Your task to perform on an android device: all mails in gmail Image 0: 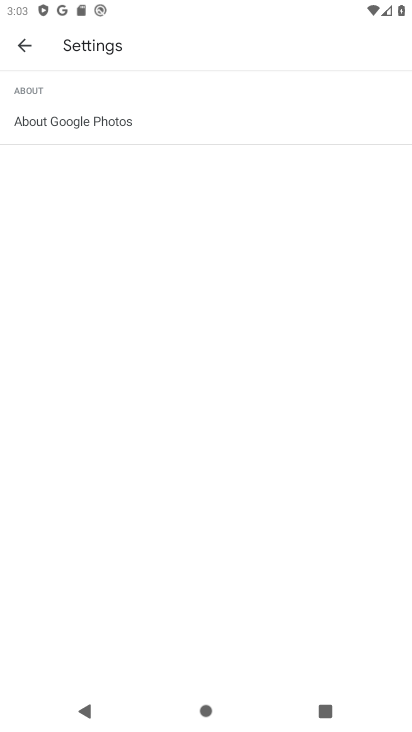
Step 0: press home button
Your task to perform on an android device: all mails in gmail Image 1: 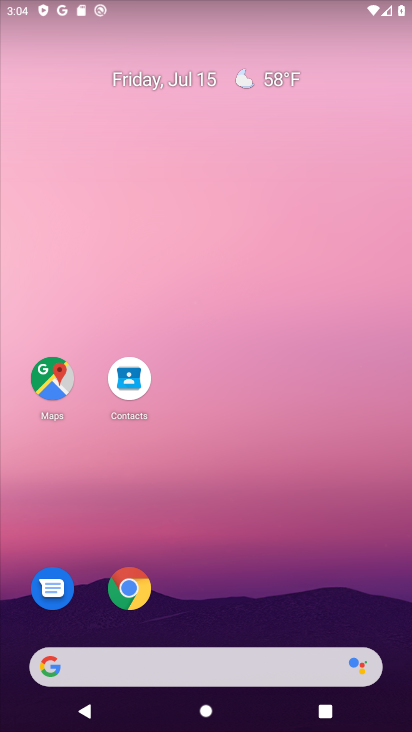
Step 1: drag from (231, 640) to (227, 45)
Your task to perform on an android device: all mails in gmail Image 2: 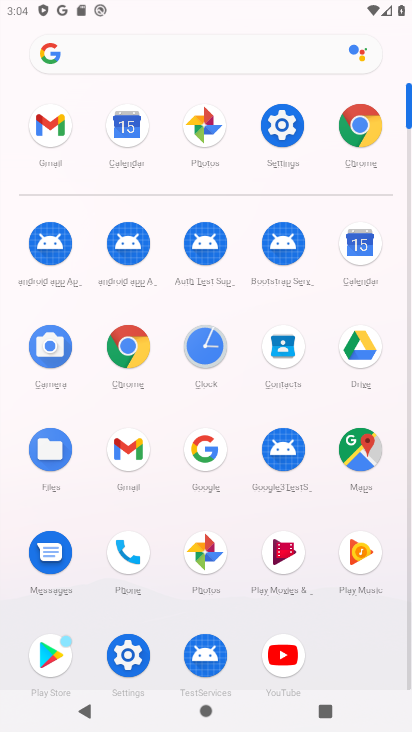
Step 2: click (49, 145)
Your task to perform on an android device: all mails in gmail Image 3: 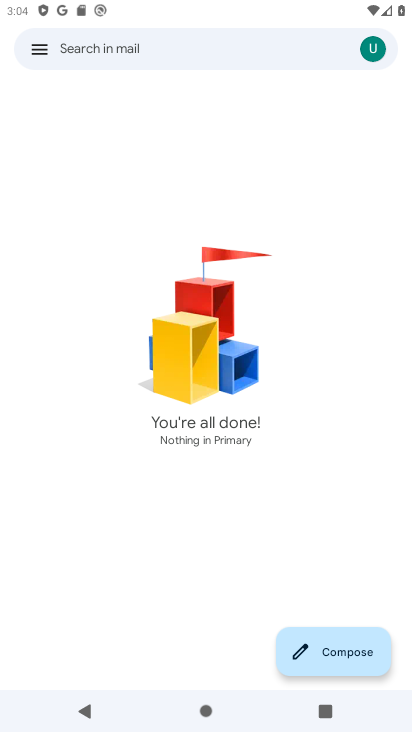
Step 3: click (50, 63)
Your task to perform on an android device: all mails in gmail Image 4: 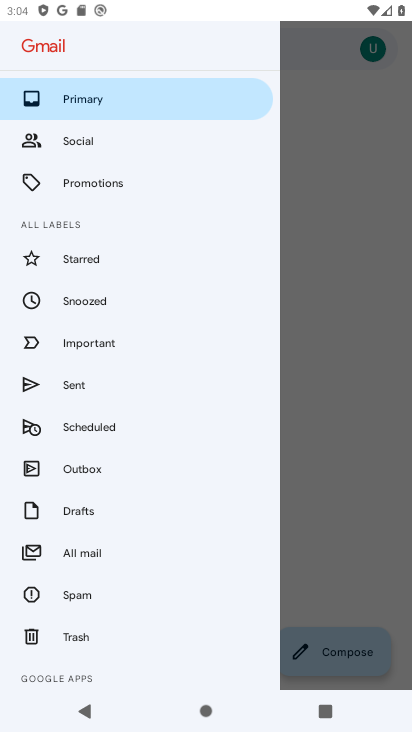
Step 4: click (122, 559)
Your task to perform on an android device: all mails in gmail Image 5: 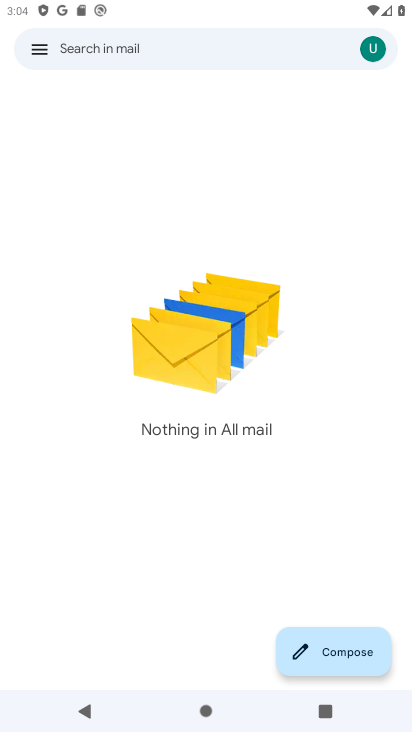
Step 5: task complete